Your task to perform on an android device: toggle data saver in the chrome app Image 0: 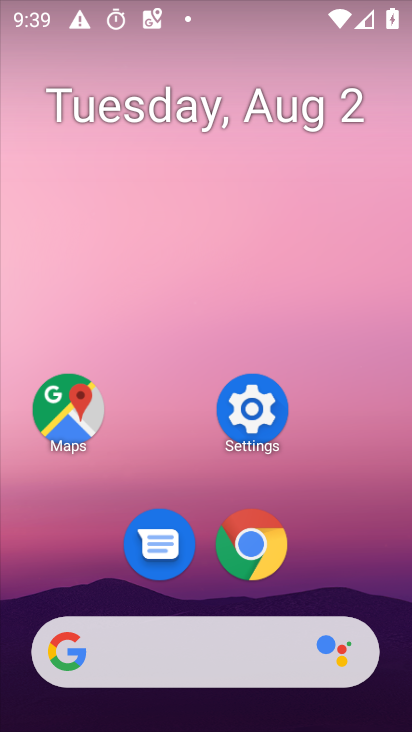
Step 0: click (257, 539)
Your task to perform on an android device: toggle data saver in the chrome app Image 1: 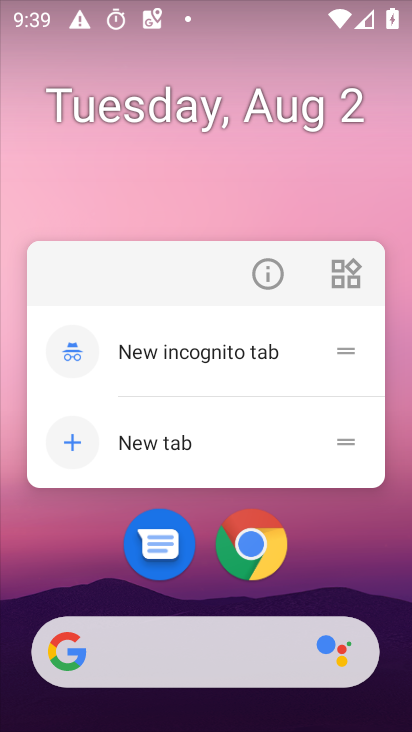
Step 1: click (249, 548)
Your task to perform on an android device: toggle data saver in the chrome app Image 2: 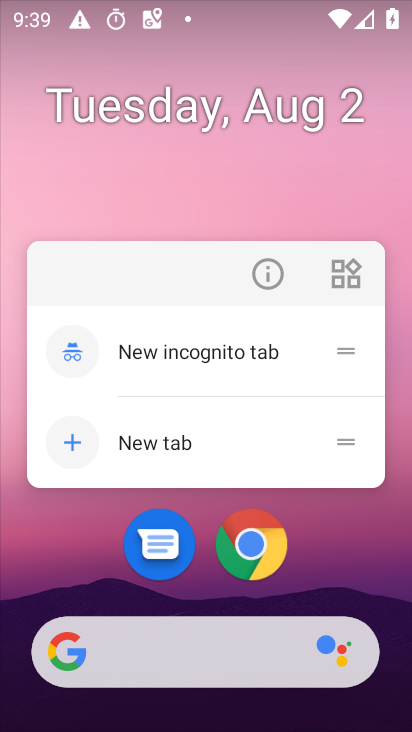
Step 2: click (249, 548)
Your task to perform on an android device: toggle data saver in the chrome app Image 3: 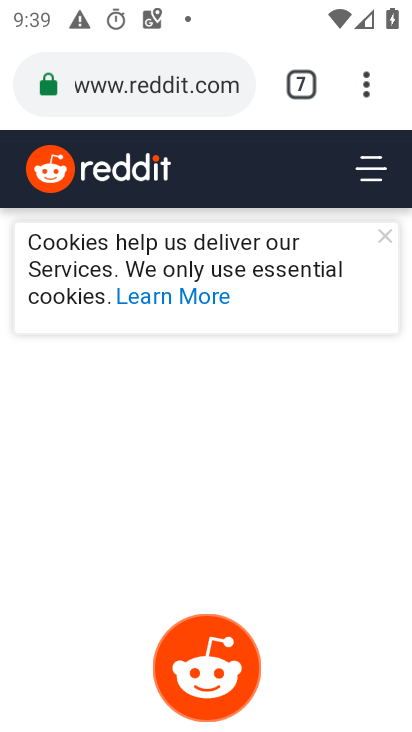
Step 3: drag from (367, 93) to (185, 594)
Your task to perform on an android device: toggle data saver in the chrome app Image 4: 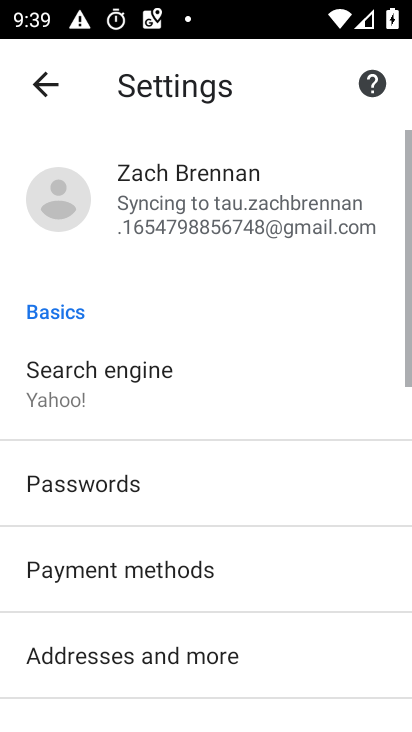
Step 4: drag from (131, 639) to (244, 222)
Your task to perform on an android device: toggle data saver in the chrome app Image 5: 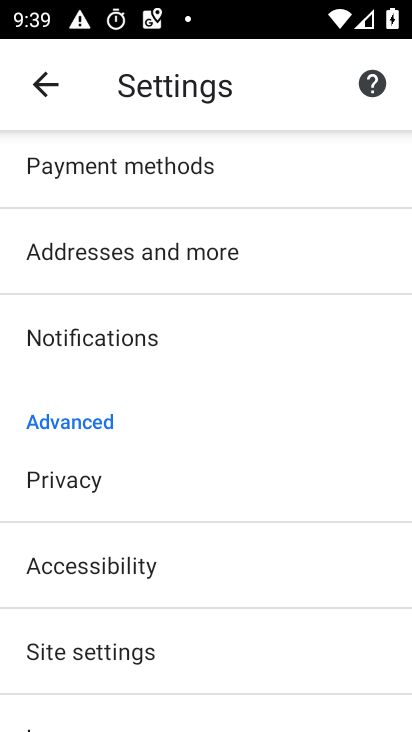
Step 5: drag from (239, 635) to (329, 220)
Your task to perform on an android device: toggle data saver in the chrome app Image 6: 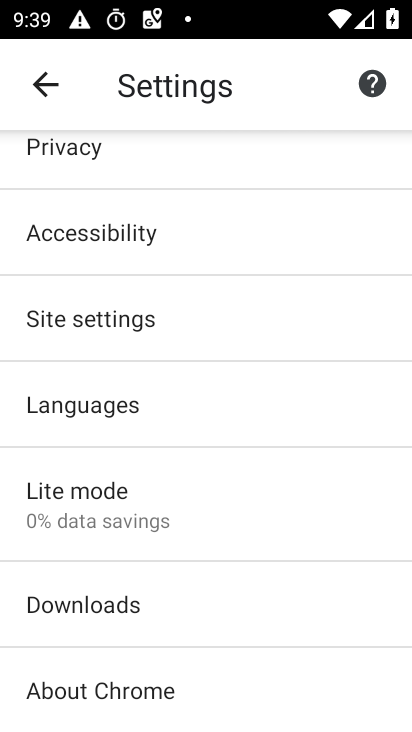
Step 6: click (137, 507)
Your task to perform on an android device: toggle data saver in the chrome app Image 7: 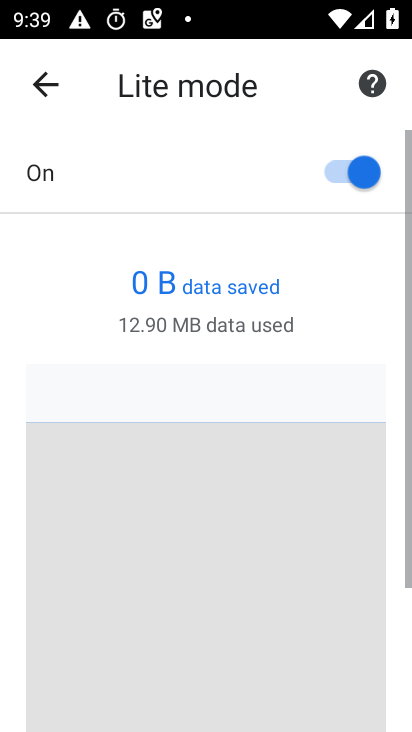
Step 7: click (335, 170)
Your task to perform on an android device: toggle data saver in the chrome app Image 8: 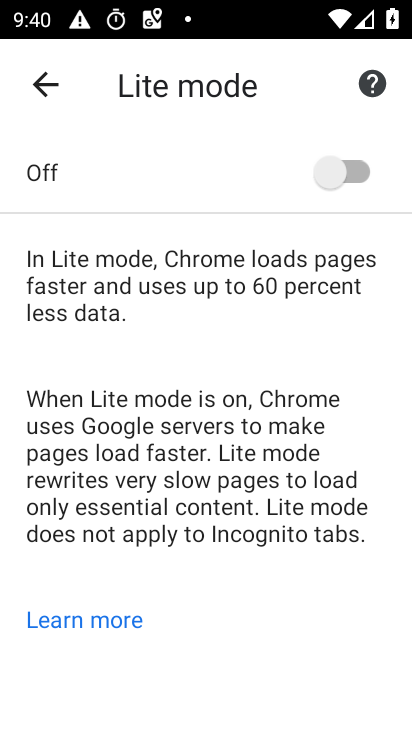
Step 8: task complete